Your task to perform on an android device: What is the news today? Image 0: 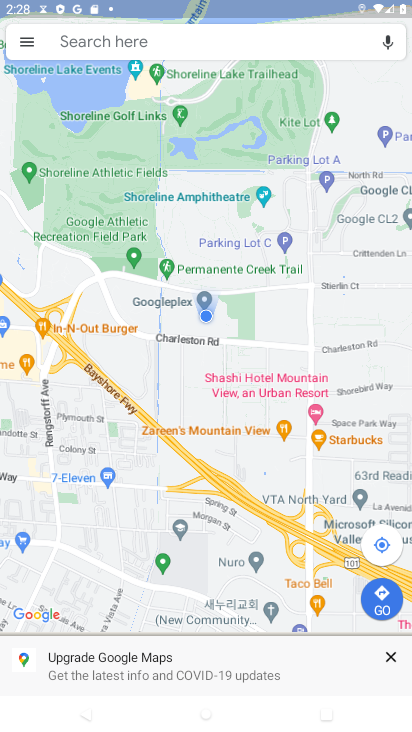
Step 0: press home button
Your task to perform on an android device: What is the news today? Image 1: 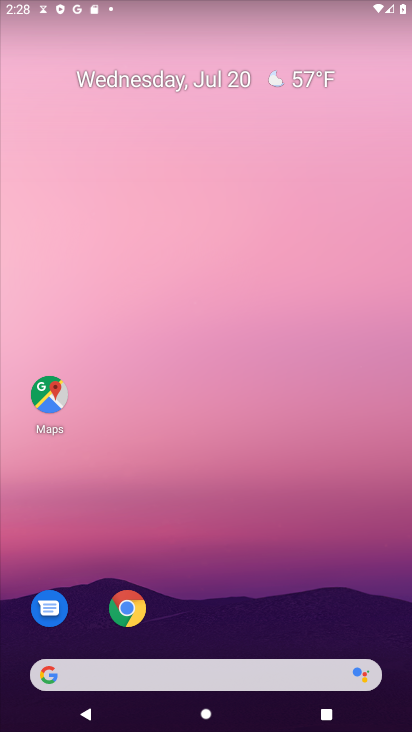
Step 1: drag from (211, 586) to (246, 77)
Your task to perform on an android device: What is the news today? Image 2: 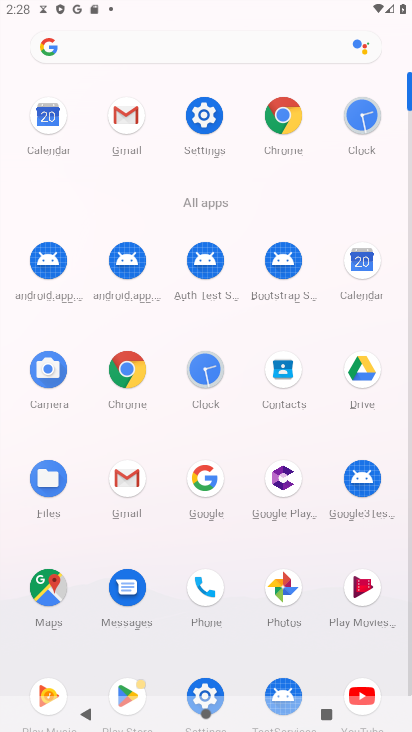
Step 2: click (197, 509)
Your task to perform on an android device: What is the news today? Image 3: 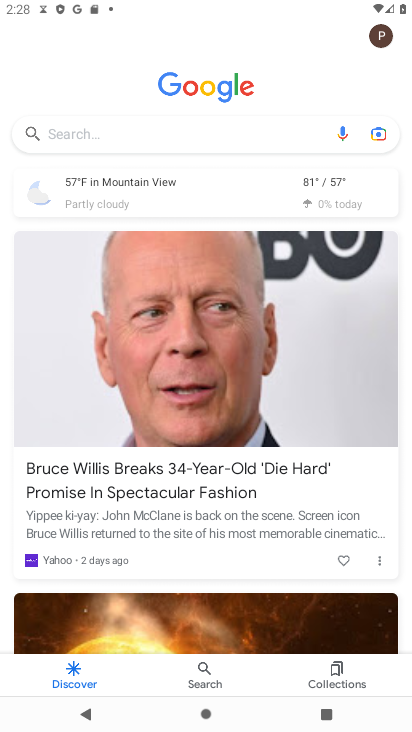
Step 3: click (154, 127)
Your task to perform on an android device: What is the news today? Image 4: 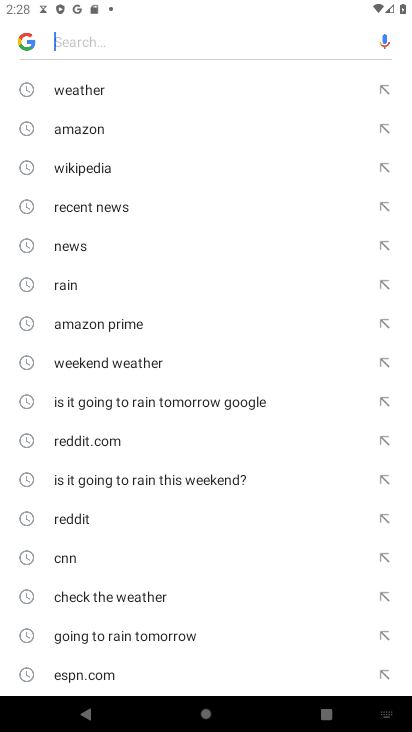
Step 4: click (64, 247)
Your task to perform on an android device: What is the news today? Image 5: 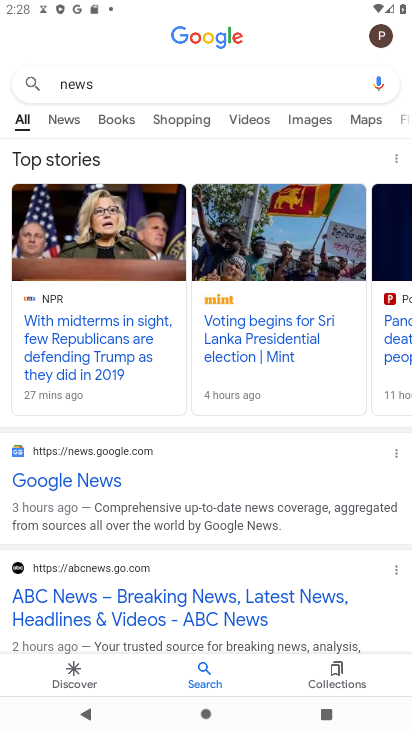
Step 5: task complete